Your task to perform on an android device: turn off notifications settings in the gmail app Image 0: 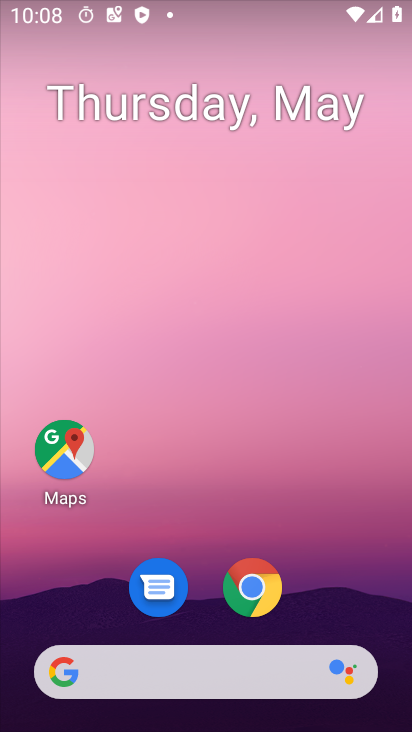
Step 0: drag from (345, 630) to (357, 37)
Your task to perform on an android device: turn off notifications settings in the gmail app Image 1: 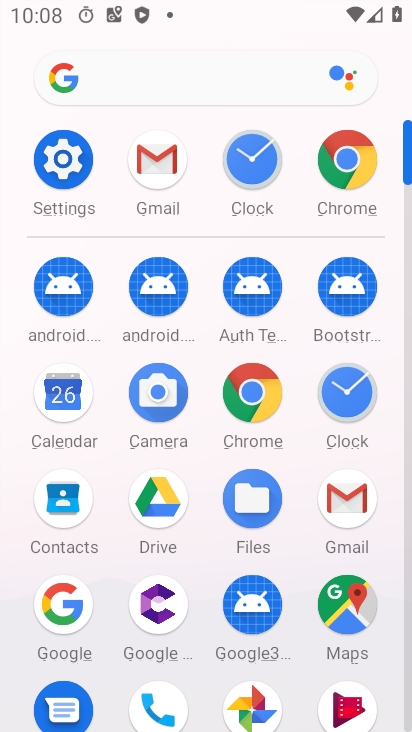
Step 1: click (157, 170)
Your task to perform on an android device: turn off notifications settings in the gmail app Image 2: 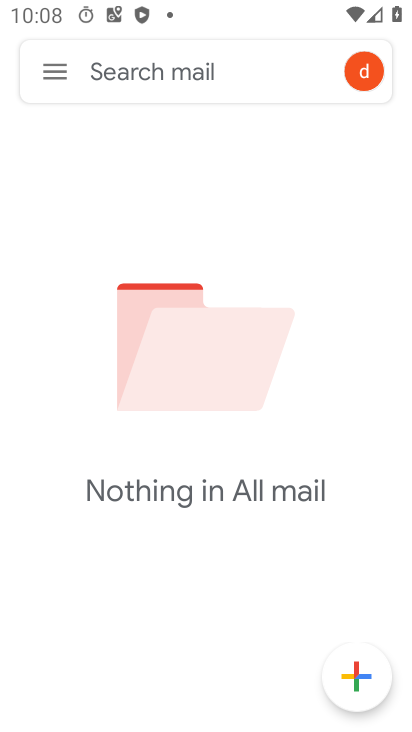
Step 2: click (54, 74)
Your task to perform on an android device: turn off notifications settings in the gmail app Image 3: 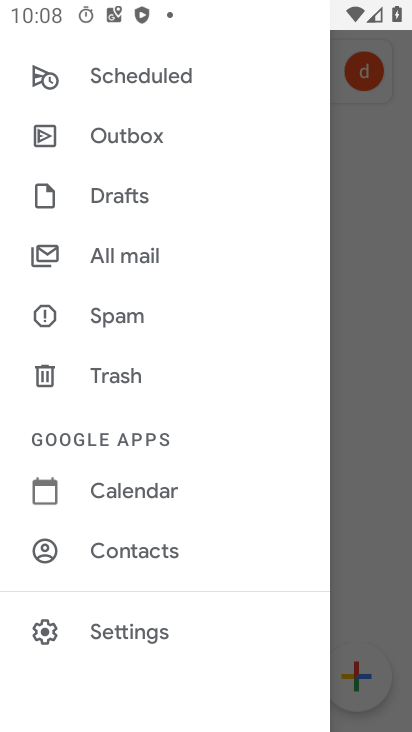
Step 3: click (144, 636)
Your task to perform on an android device: turn off notifications settings in the gmail app Image 4: 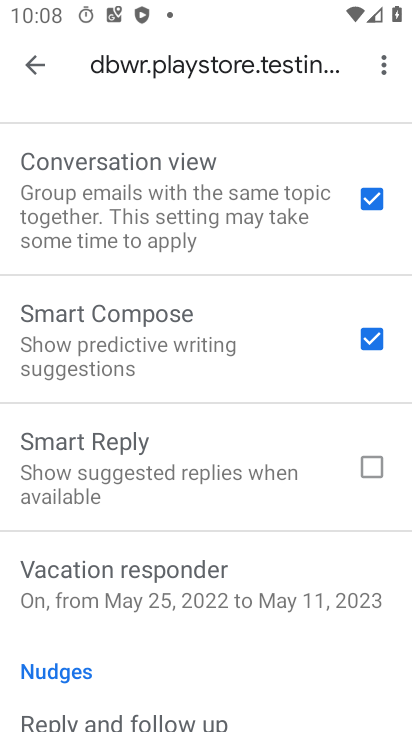
Step 4: click (32, 72)
Your task to perform on an android device: turn off notifications settings in the gmail app Image 5: 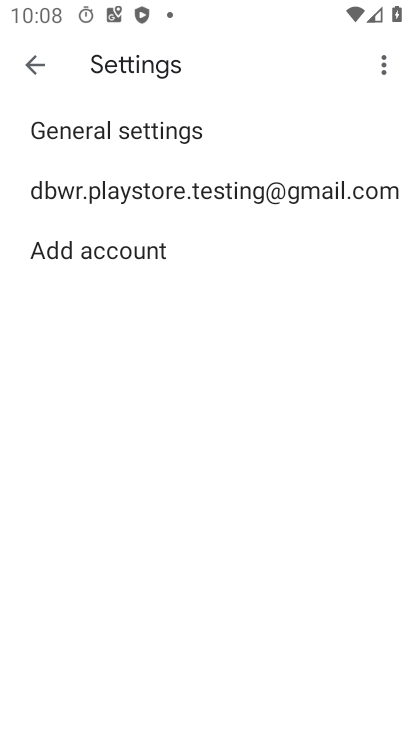
Step 5: click (76, 118)
Your task to perform on an android device: turn off notifications settings in the gmail app Image 6: 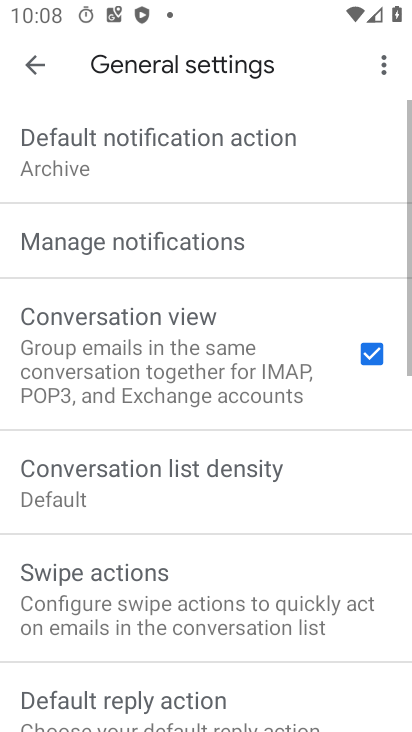
Step 6: click (105, 245)
Your task to perform on an android device: turn off notifications settings in the gmail app Image 7: 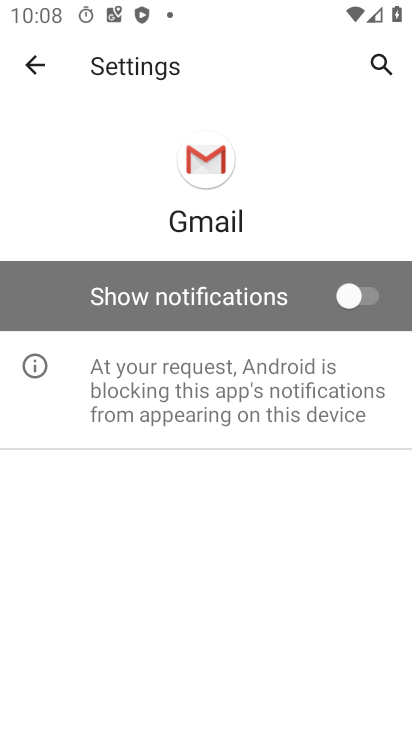
Step 7: task complete